Your task to perform on an android device: When is my next meeting? Image 0: 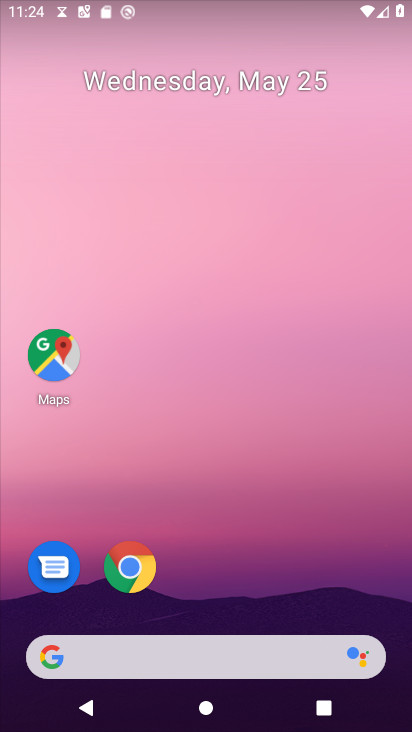
Step 0: drag from (285, 581) to (279, 100)
Your task to perform on an android device: When is my next meeting? Image 1: 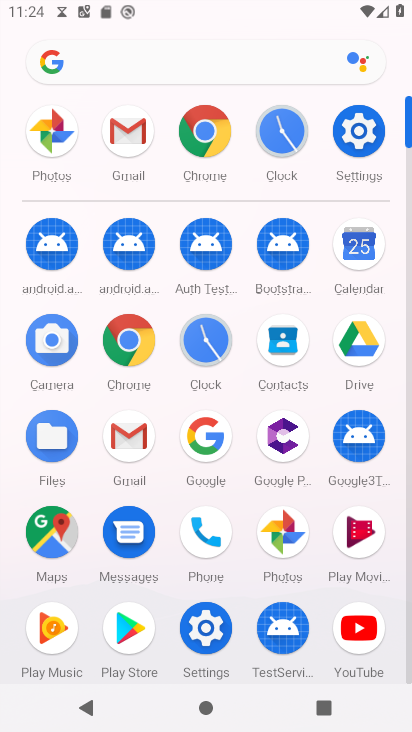
Step 1: click (354, 250)
Your task to perform on an android device: When is my next meeting? Image 2: 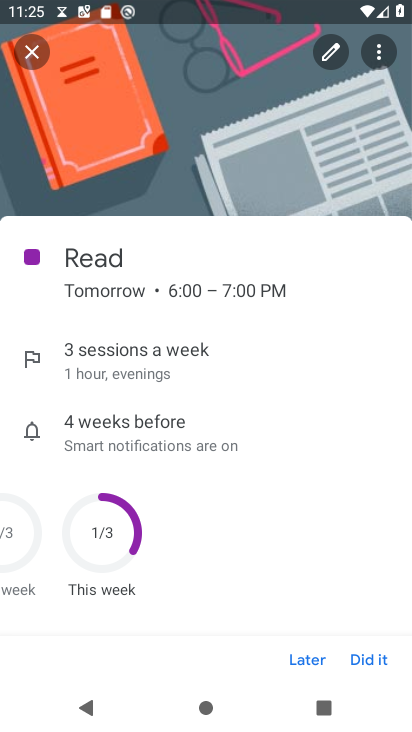
Step 2: click (28, 50)
Your task to perform on an android device: When is my next meeting? Image 3: 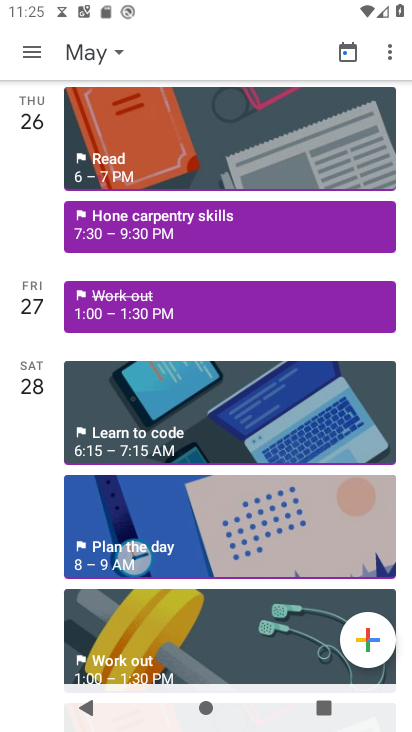
Step 3: task complete